Your task to perform on an android device: Open the gallery Image 0: 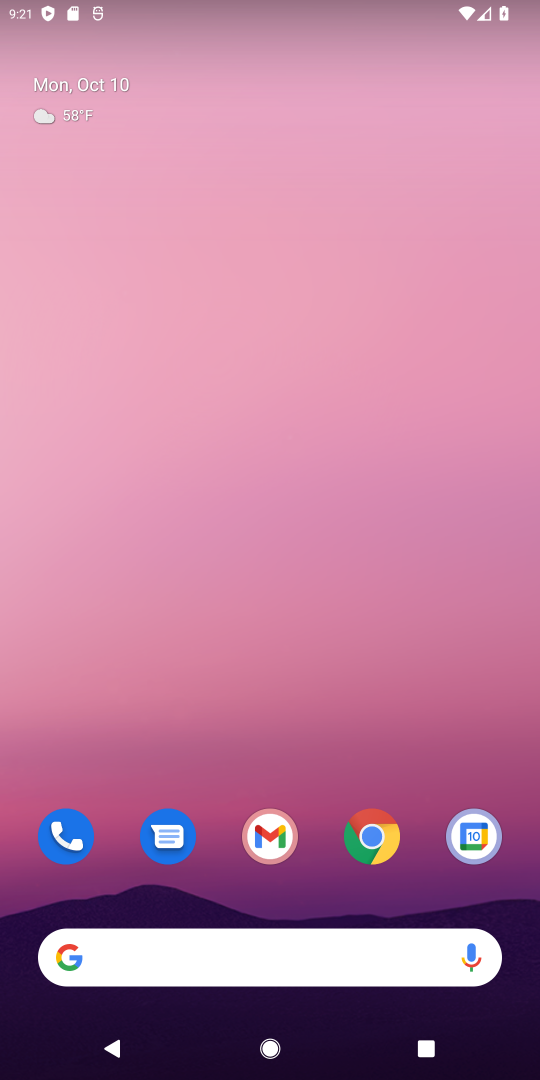
Step 0: drag from (225, 872) to (291, 178)
Your task to perform on an android device: Open the gallery Image 1: 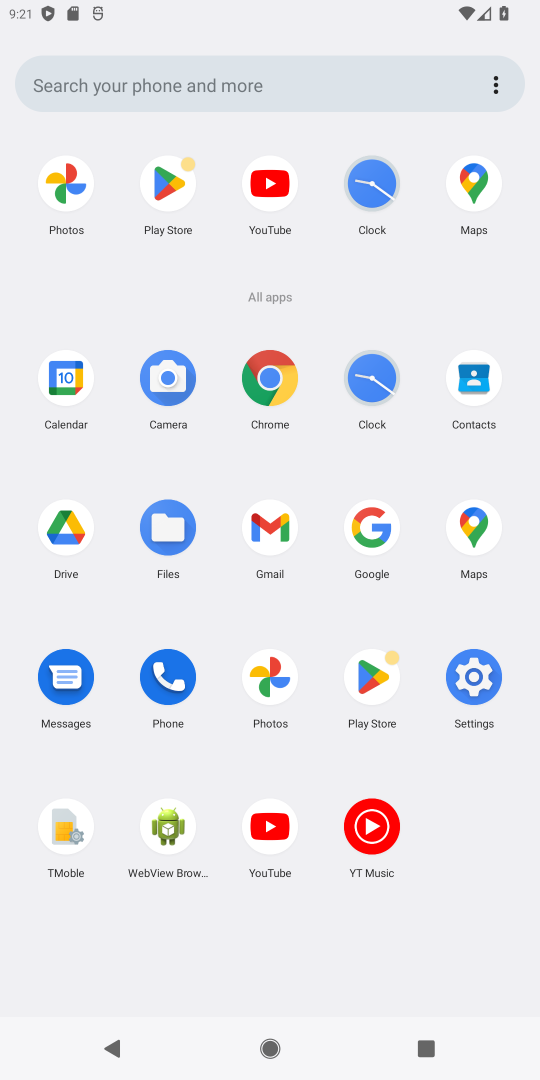
Step 1: click (273, 79)
Your task to perform on an android device: Open the gallery Image 2: 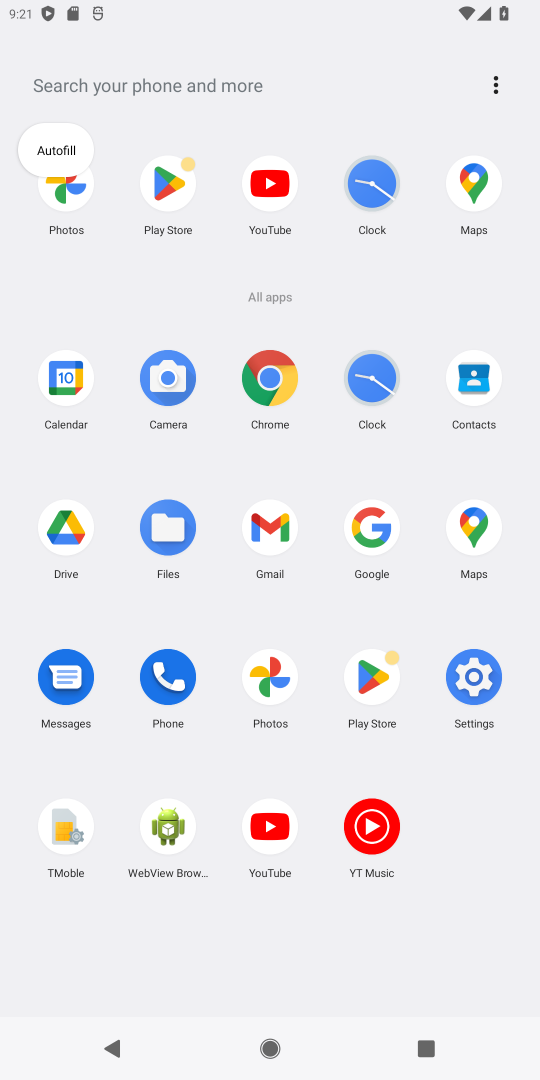
Step 2: click (286, 925)
Your task to perform on an android device: Open the gallery Image 3: 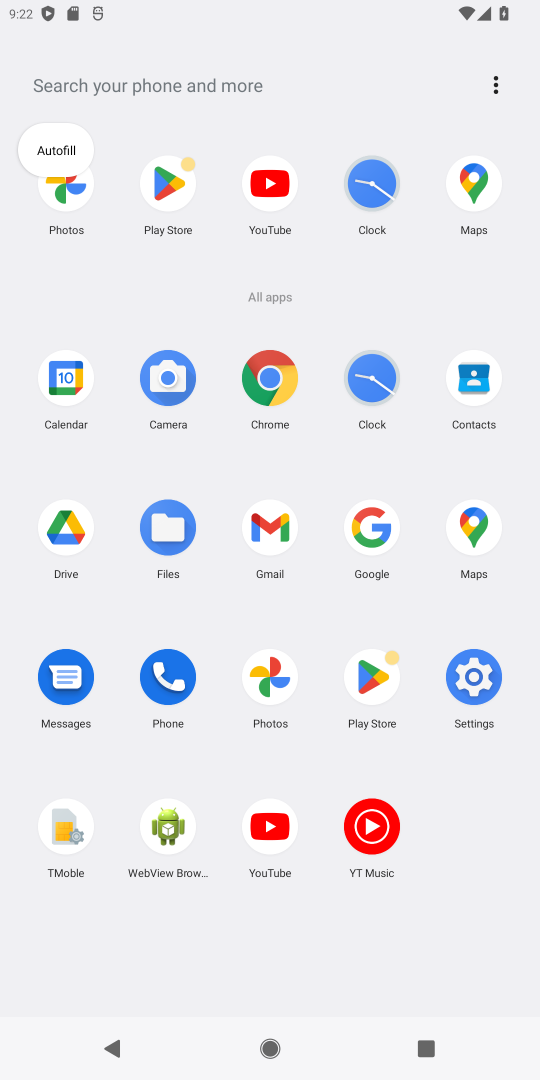
Step 3: click (362, 511)
Your task to perform on an android device: Open the gallery Image 4: 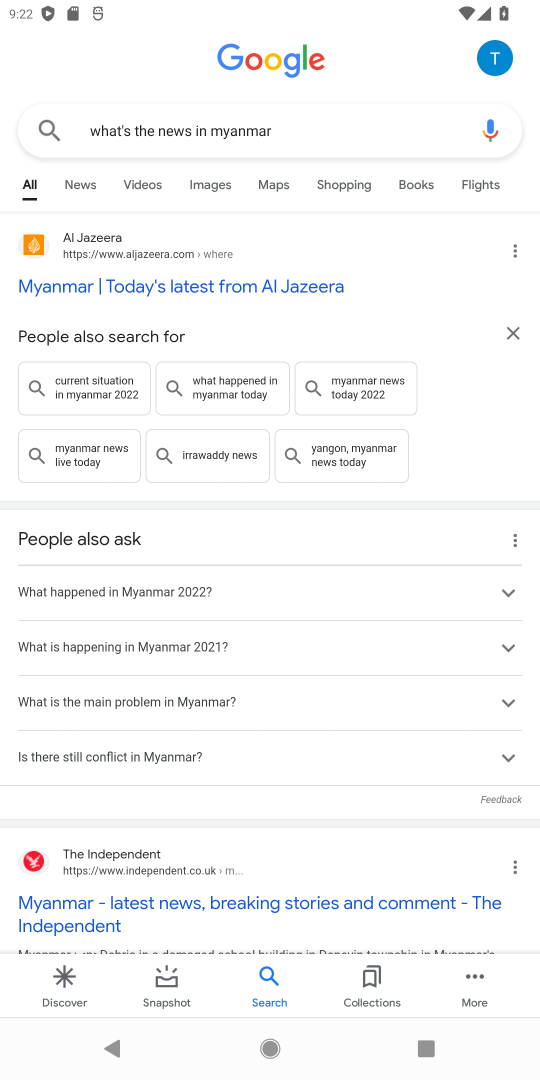
Step 4: click (273, 129)
Your task to perform on an android device: Open the gallery Image 5: 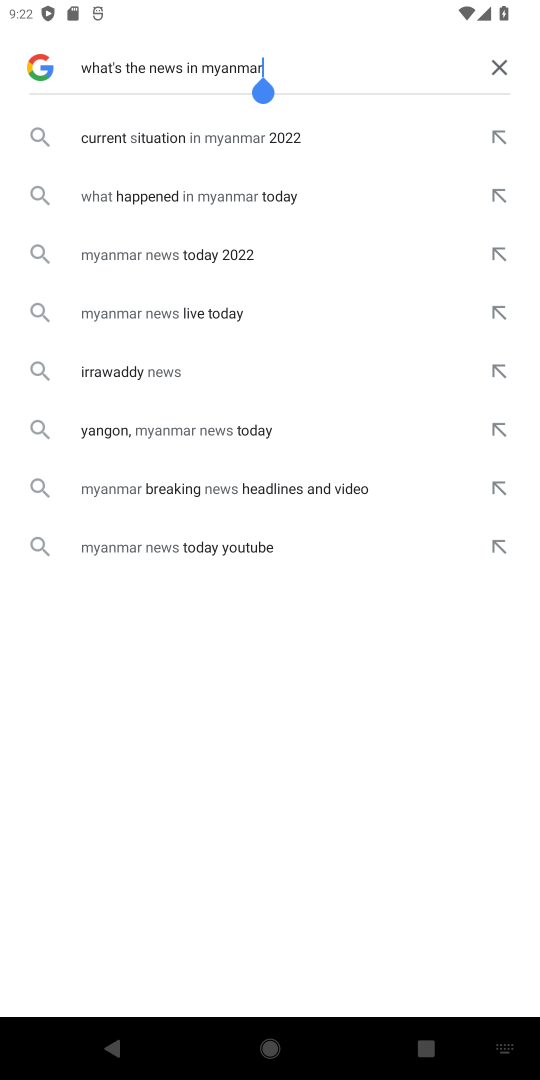
Step 5: task complete